Your task to perform on an android device: change the upload size in google photos Image 0: 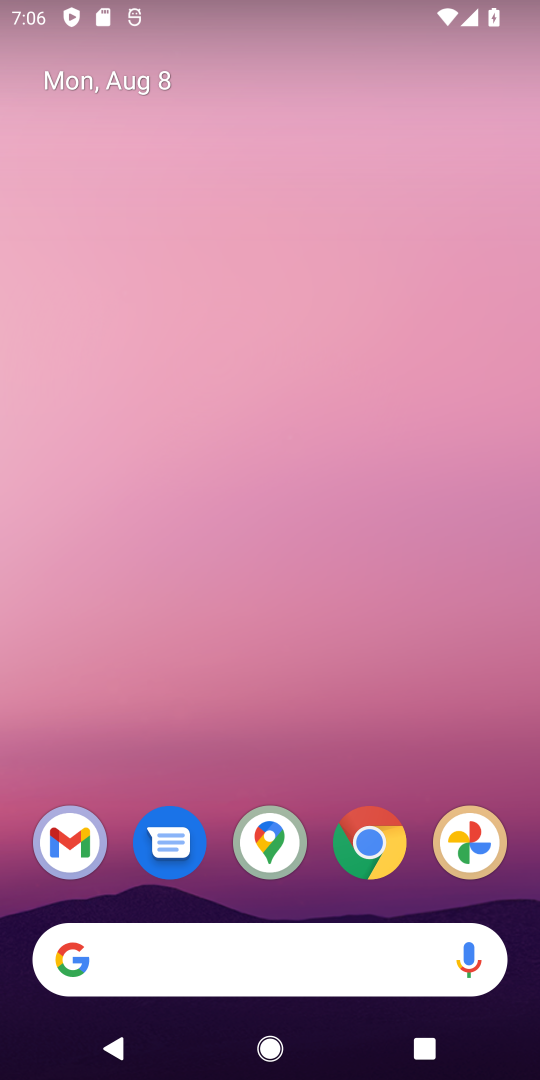
Step 0: drag from (299, 906) to (421, 29)
Your task to perform on an android device: change the upload size in google photos Image 1: 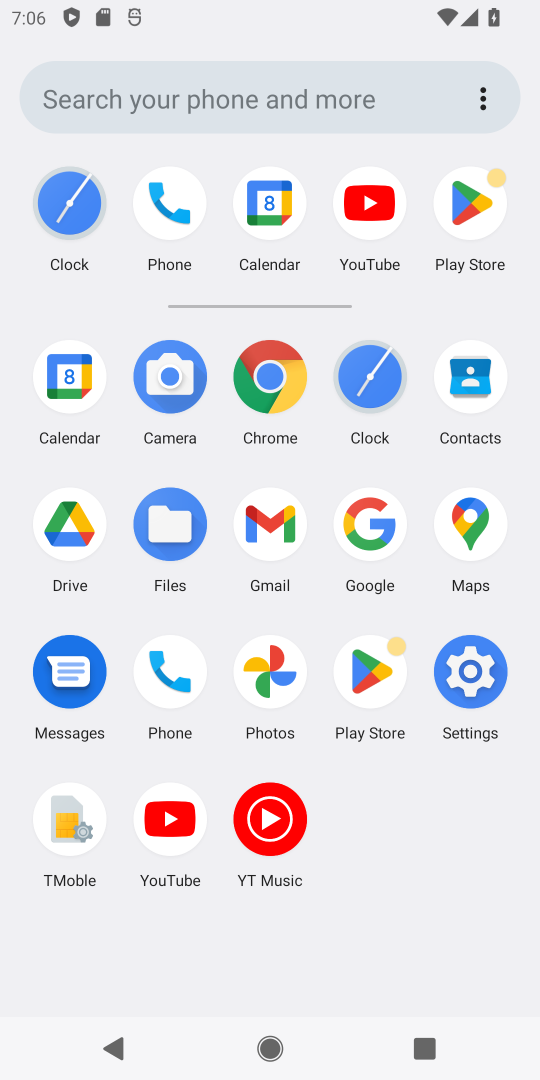
Step 1: click (284, 658)
Your task to perform on an android device: change the upload size in google photos Image 2: 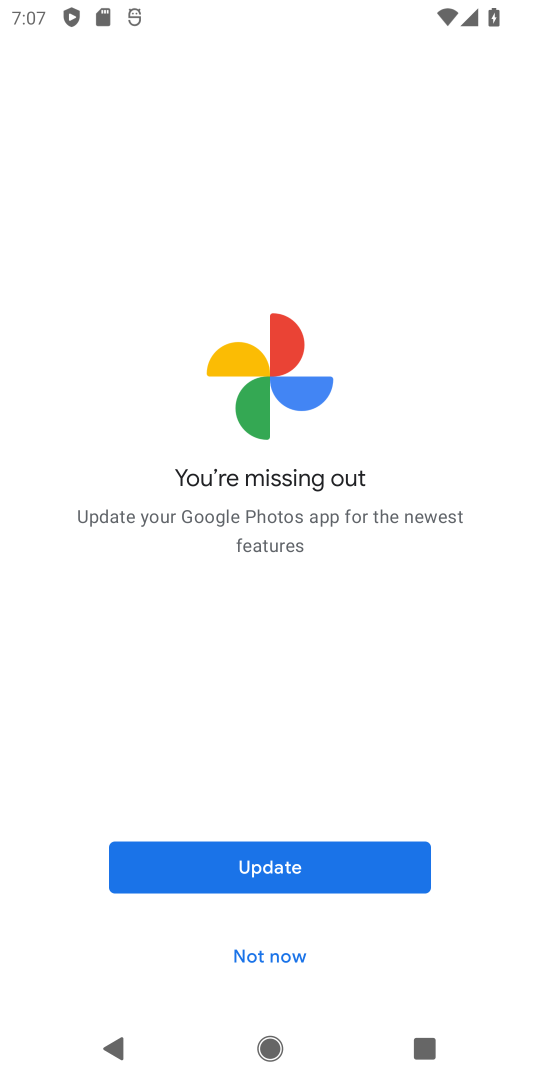
Step 2: click (263, 953)
Your task to perform on an android device: change the upload size in google photos Image 3: 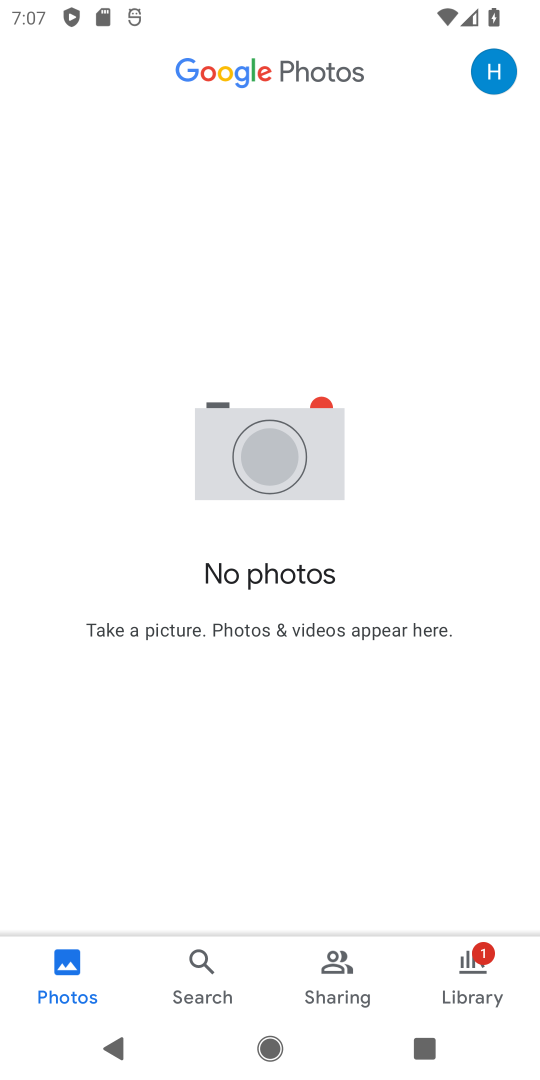
Step 3: click (485, 72)
Your task to perform on an android device: change the upload size in google photos Image 4: 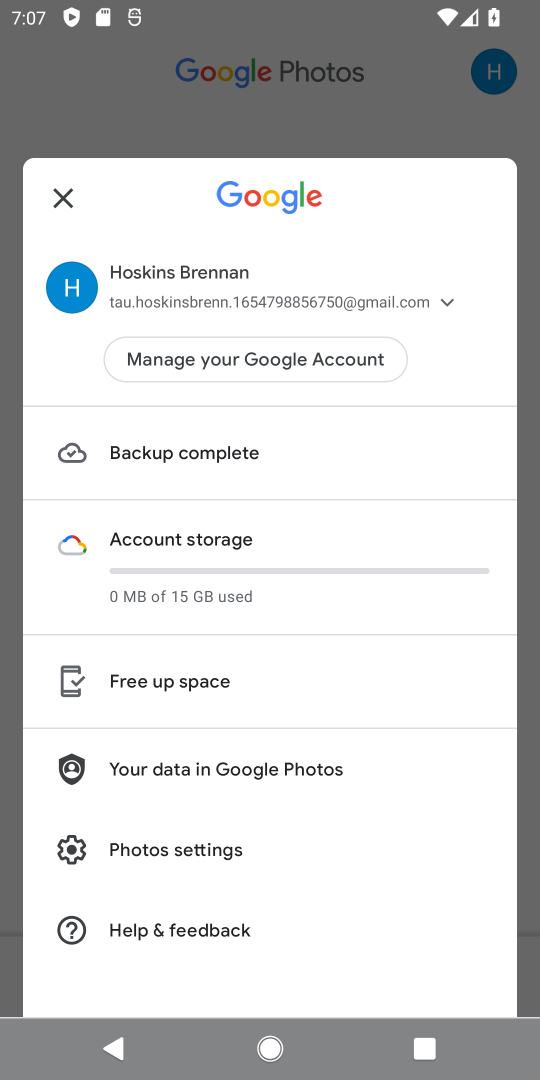
Step 4: click (183, 853)
Your task to perform on an android device: change the upload size in google photos Image 5: 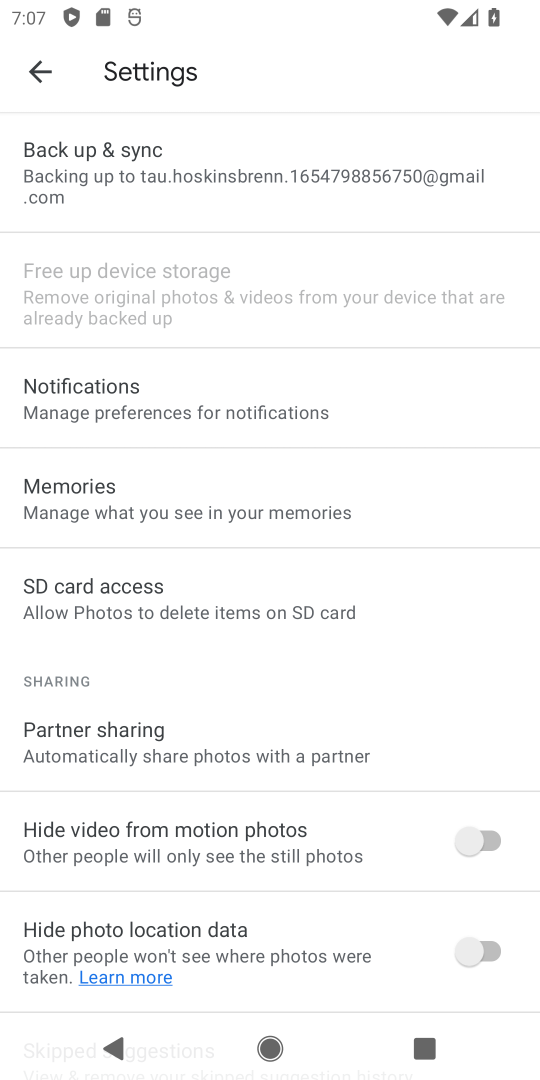
Step 5: click (100, 144)
Your task to perform on an android device: change the upload size in google photos Image 6: 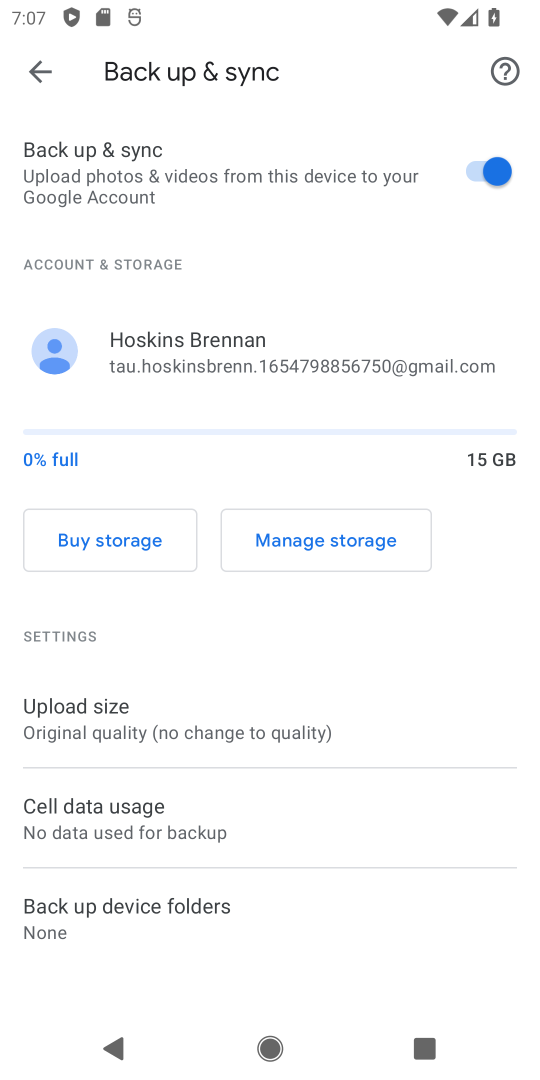
Step 6: click (126, 750)
Your task to perform on an android device: change the upload size in google photos Image 7: 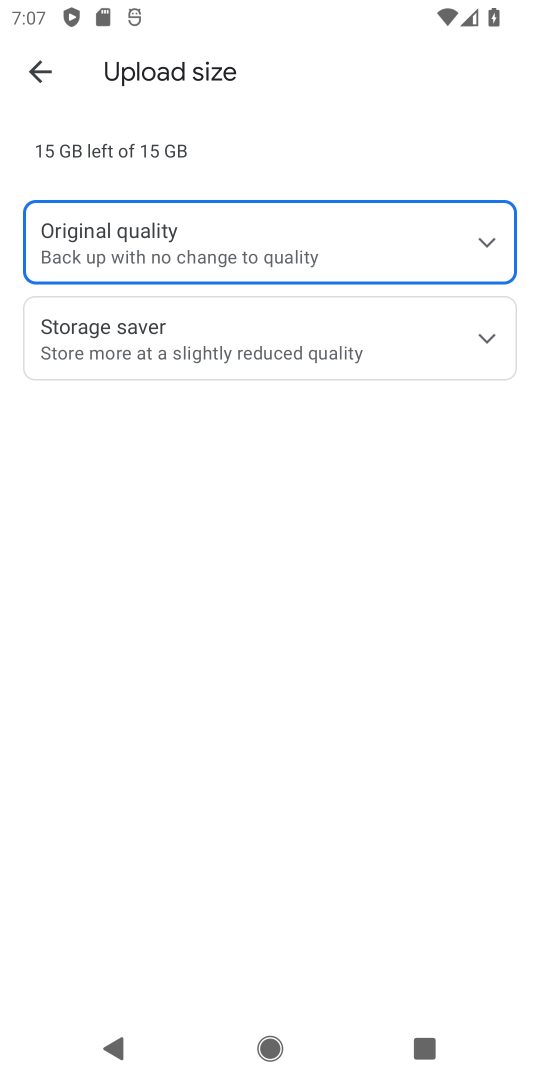
Step 7: click (111, 340)
Your task to perform on an android device: change the upload size in google photos Image 8: 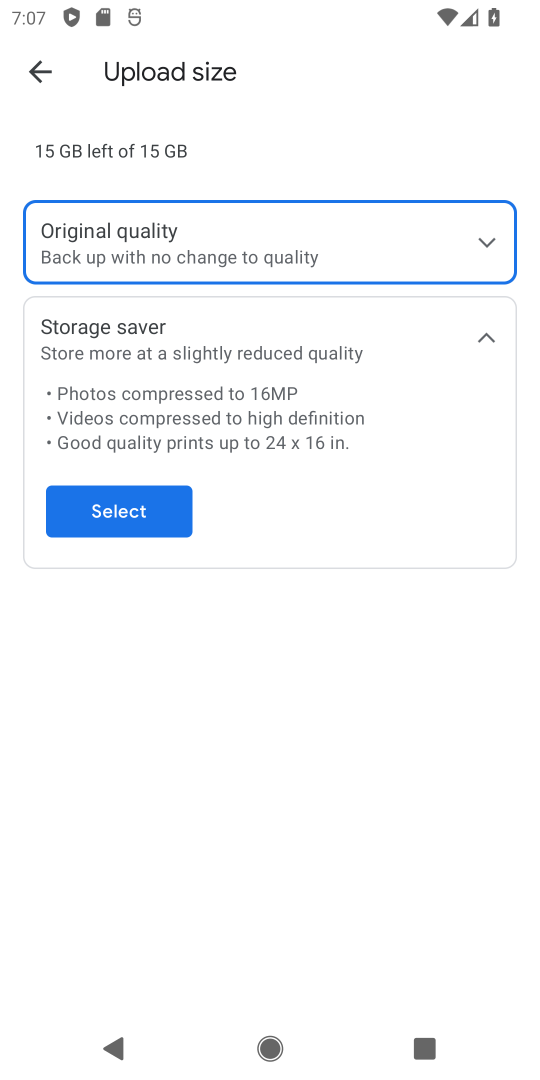
Step 8: click (117, 509)
Your task to perform on an android device: change the upload size in google photos Image 9: 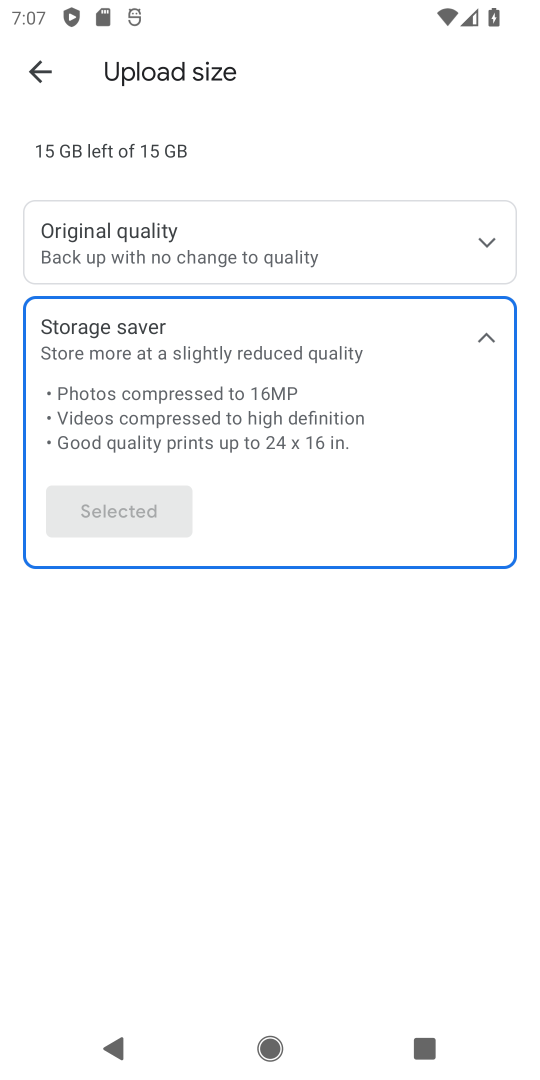
Step 9: task complete